Your task to perform on an android device: Open the calendar app, open the side menu, and click the "Day" option Image 0: 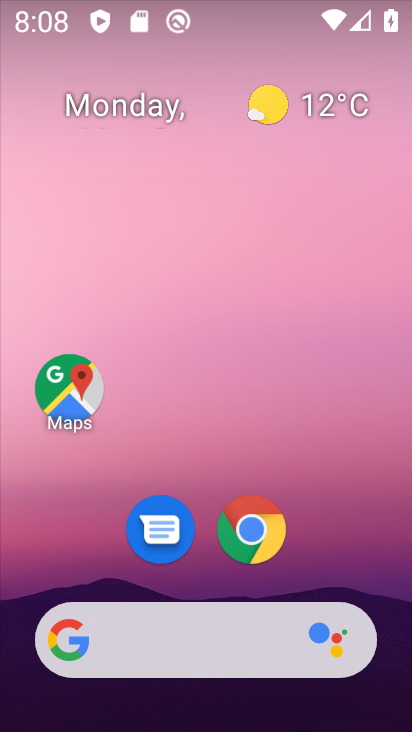
Step 0: drag from (220, 643) to (223, 174)
Your task to perform on an android device: Open the calendar app, open the side menu, and click the "Day" option Image 1: 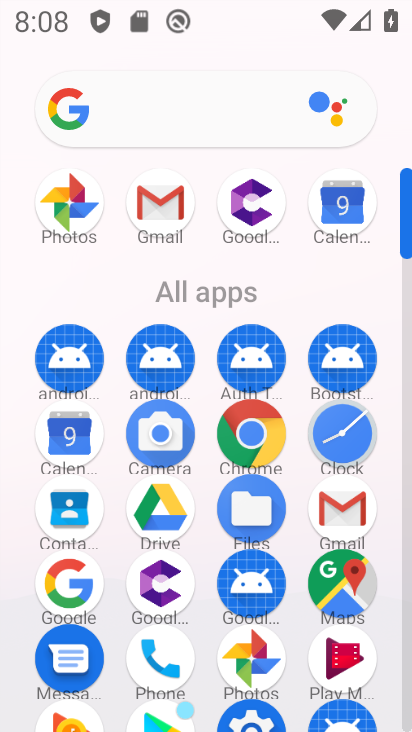
Step 1: click (71, 438)
Your task to perform on an android device: Open the calendar app, open the side menu, and click the "Day" option Image 2: 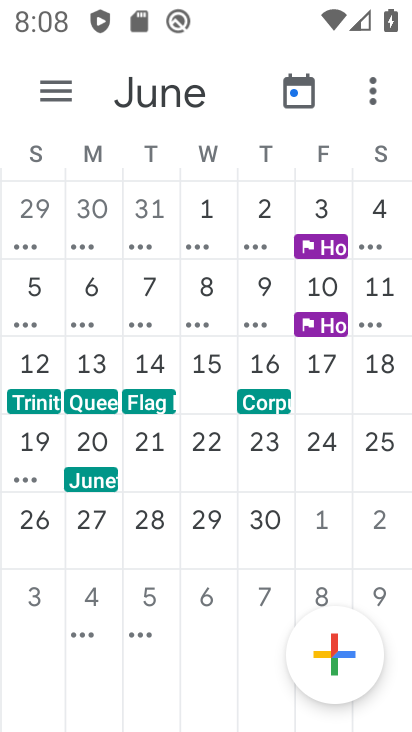
Step 2: click (57, 95)
Your task to perform on an android device: Open the calendar app, open the side menu, and click the "Day" option Image 3: 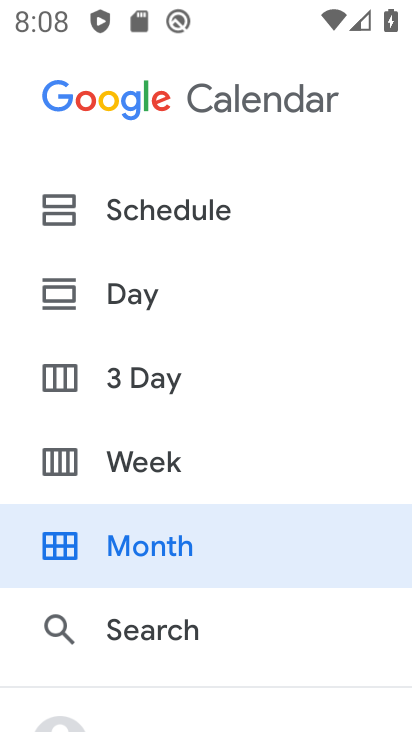
Step 3: click (126, 301)
Your task to perform on an android device: Open the calendar app, open the side menu, and click the "Day" option Image 4: 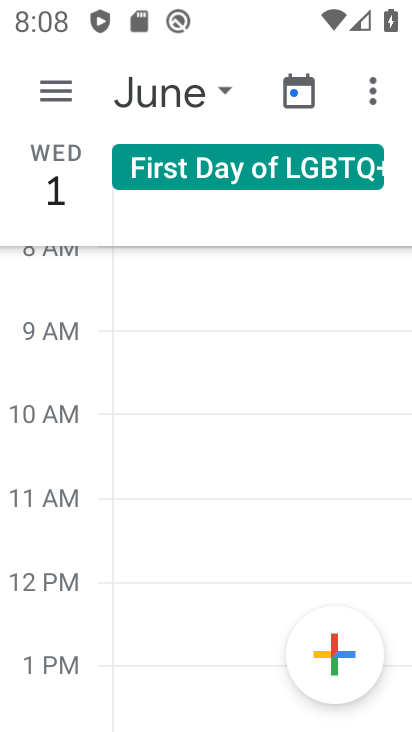
Step 4: task complete